Your task to perform on an android device: Open Maps and search for coffee Image 0: 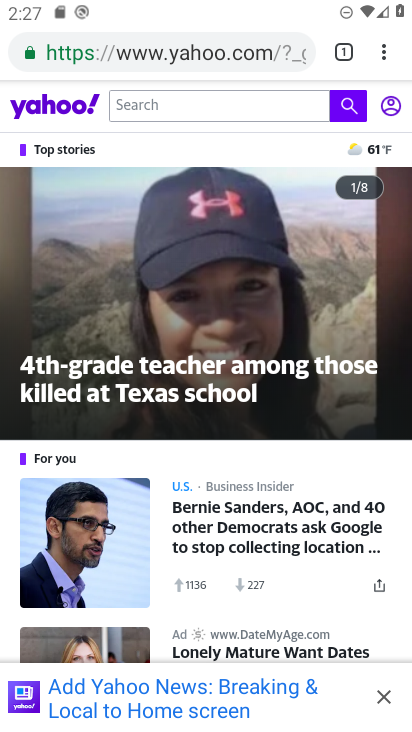
Step 0: press home button
Your task to perform on an android device: Open Maps and search for coffee Image 1: 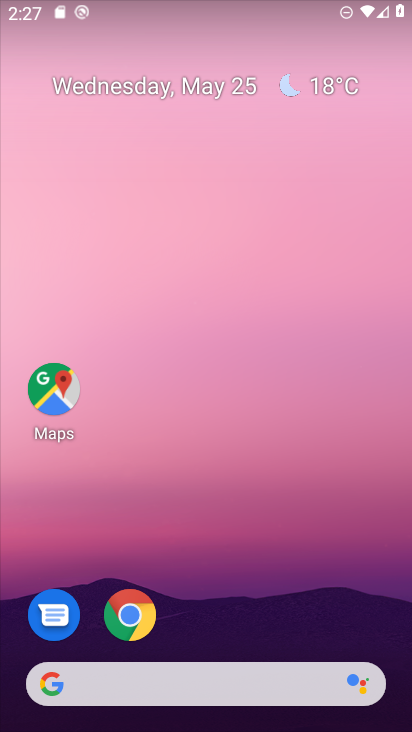
Step 1: click (40, 377)
Your task to perform on an android device: Open Maps and search for coffee Image 2: 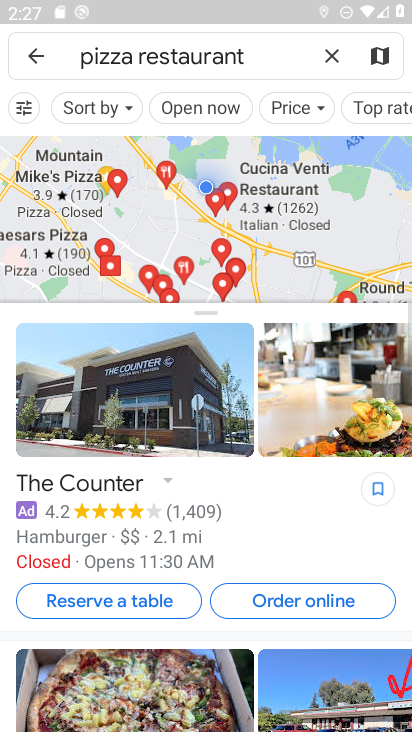
Step 2: click (321, 42)
Your task to perform on an android device: Open Maps and search for coffee Image 3: 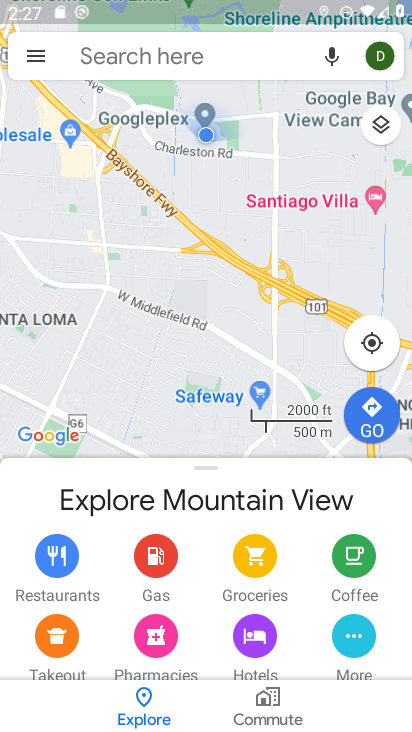
Step 3: click (260, 49)
Your task to perform on an android device: Open Maps and search for coffee Image 4: 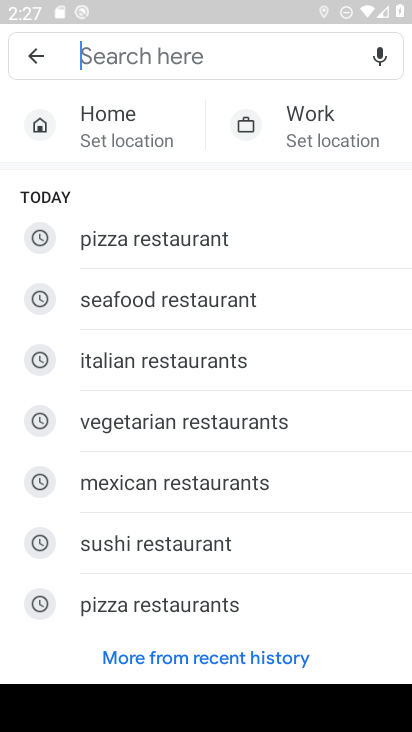
Step 4: type "coffee"
Your task to perform on an android device: Open Maps and search for coffee Image 5: 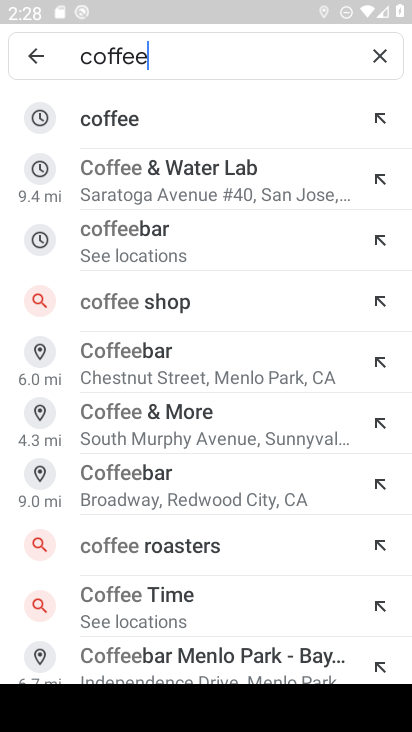
Step 5: click (130, 119)
Your task to perform on an android device: Open Maps and search for coffee Image 6: 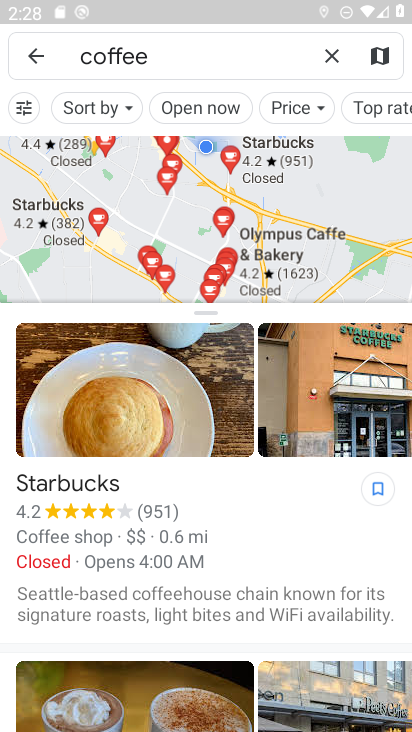
Step 6: task complete